Your task to perform on an android device: Search for sushi restaurants on Maps Image 0: 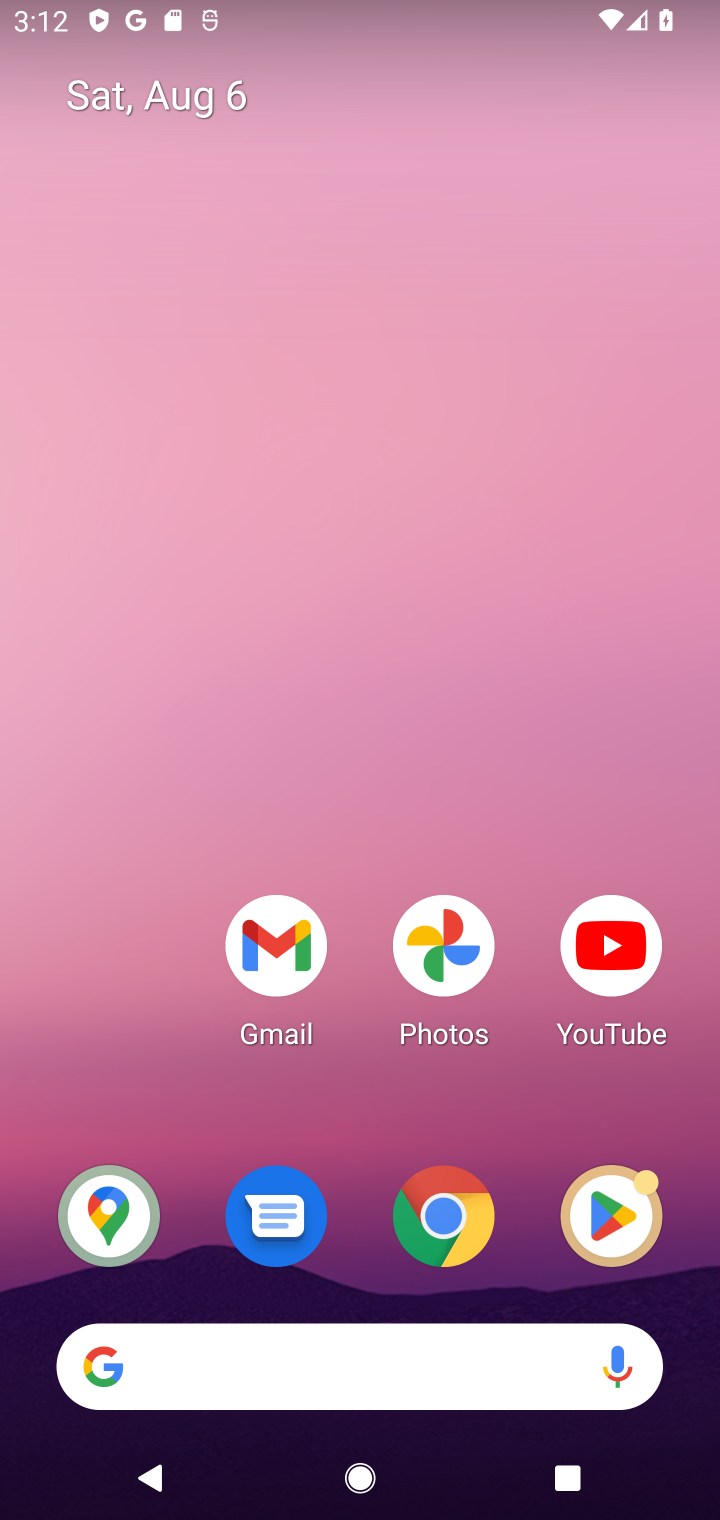
Step 0: click (127, 1231)
Your task to perform on an android device: Search for sushi restaurants on Maps Image 1: 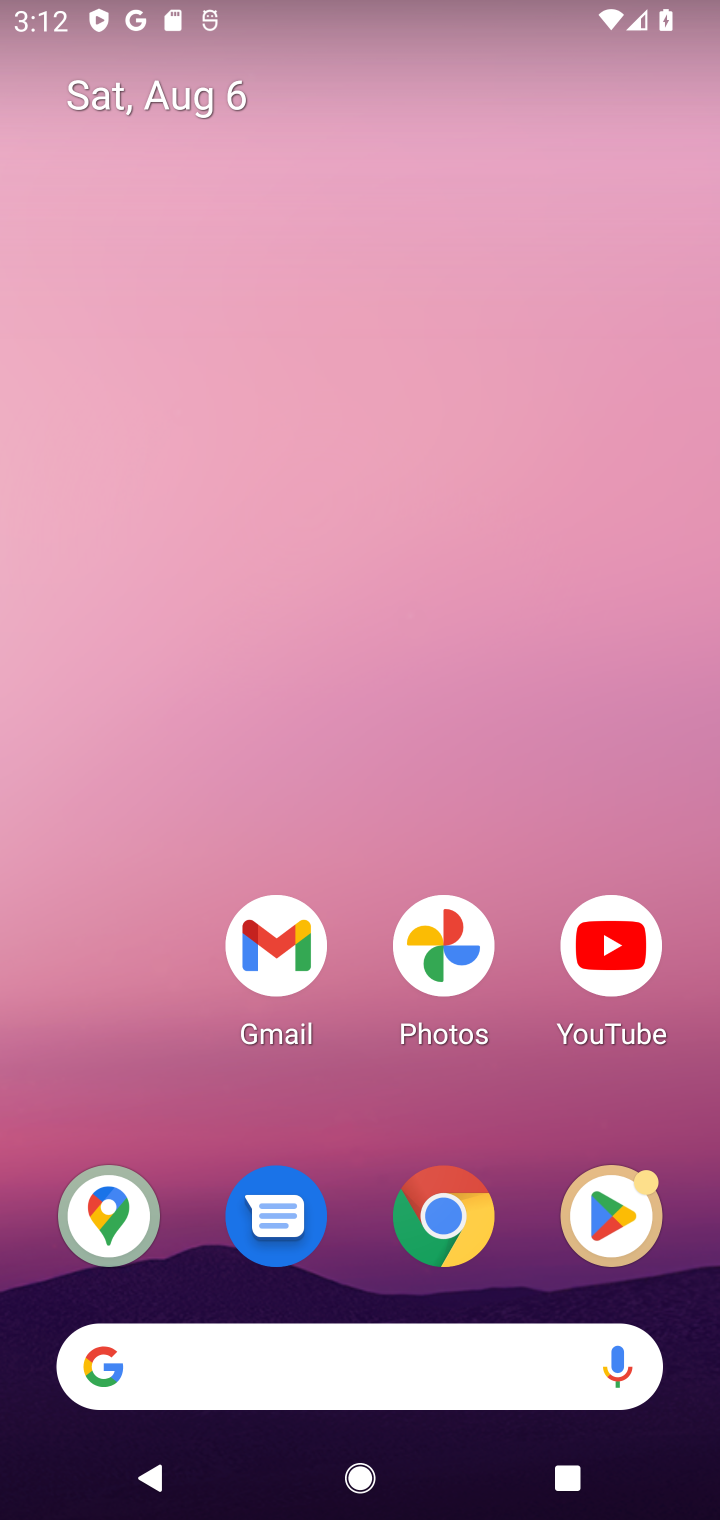
Step 1: click (127, 1231)
Your task to perform on an android device: Search for sushi restaurants on Maps Image 2: 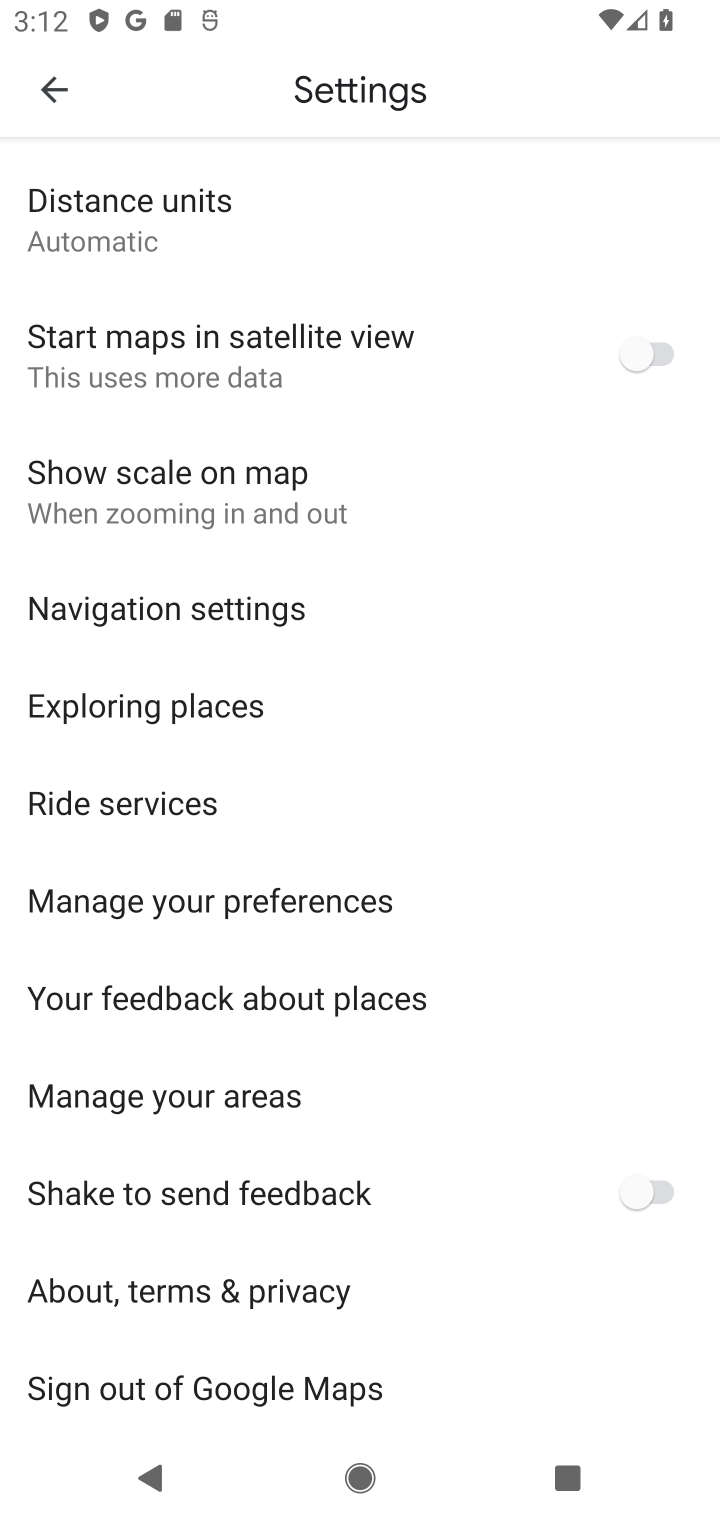
Step 2: press back button
Your task to perform on an android device: Search for sushi restaurants on Maps Image 3: 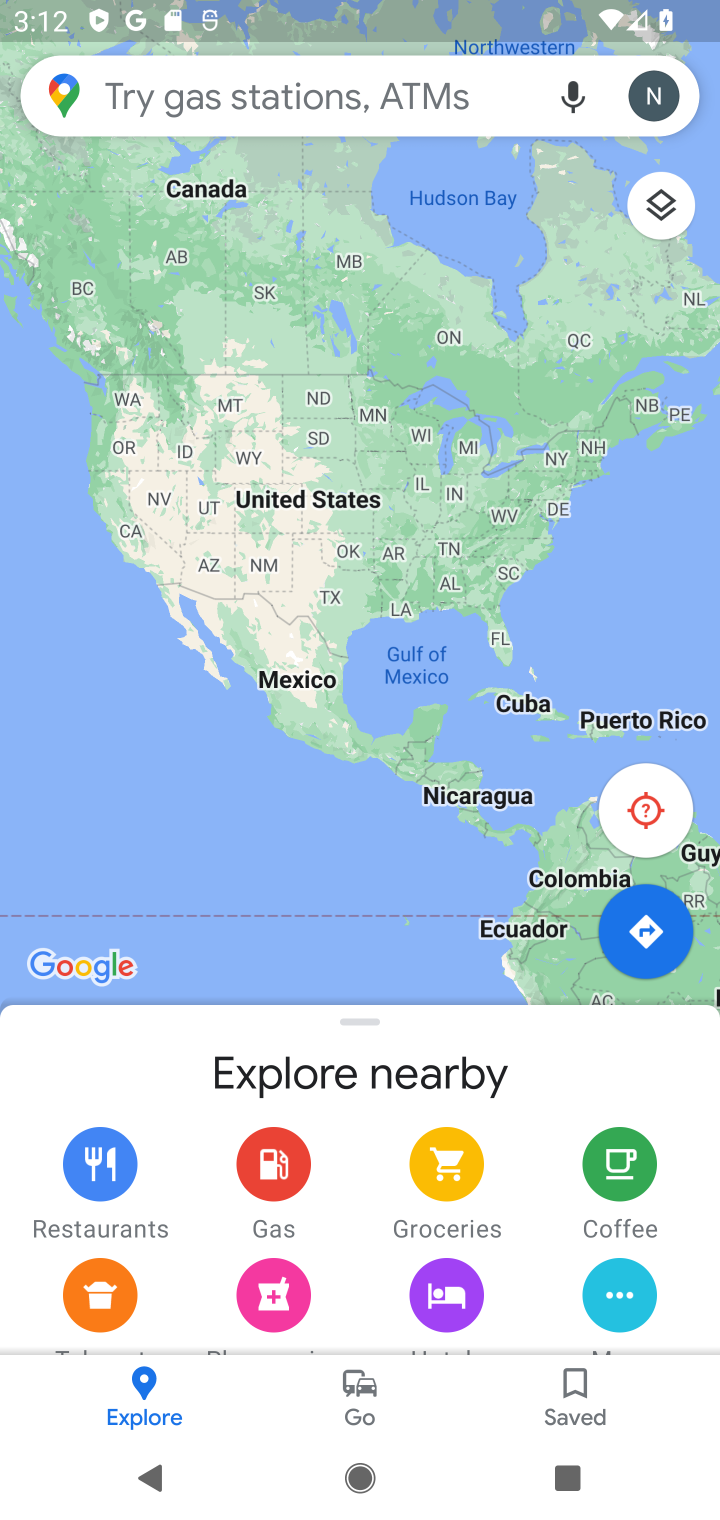
Step 3: click (240, 83)
Your task to perform on an android device: Search for sushi restaurants on Maps Image 4: 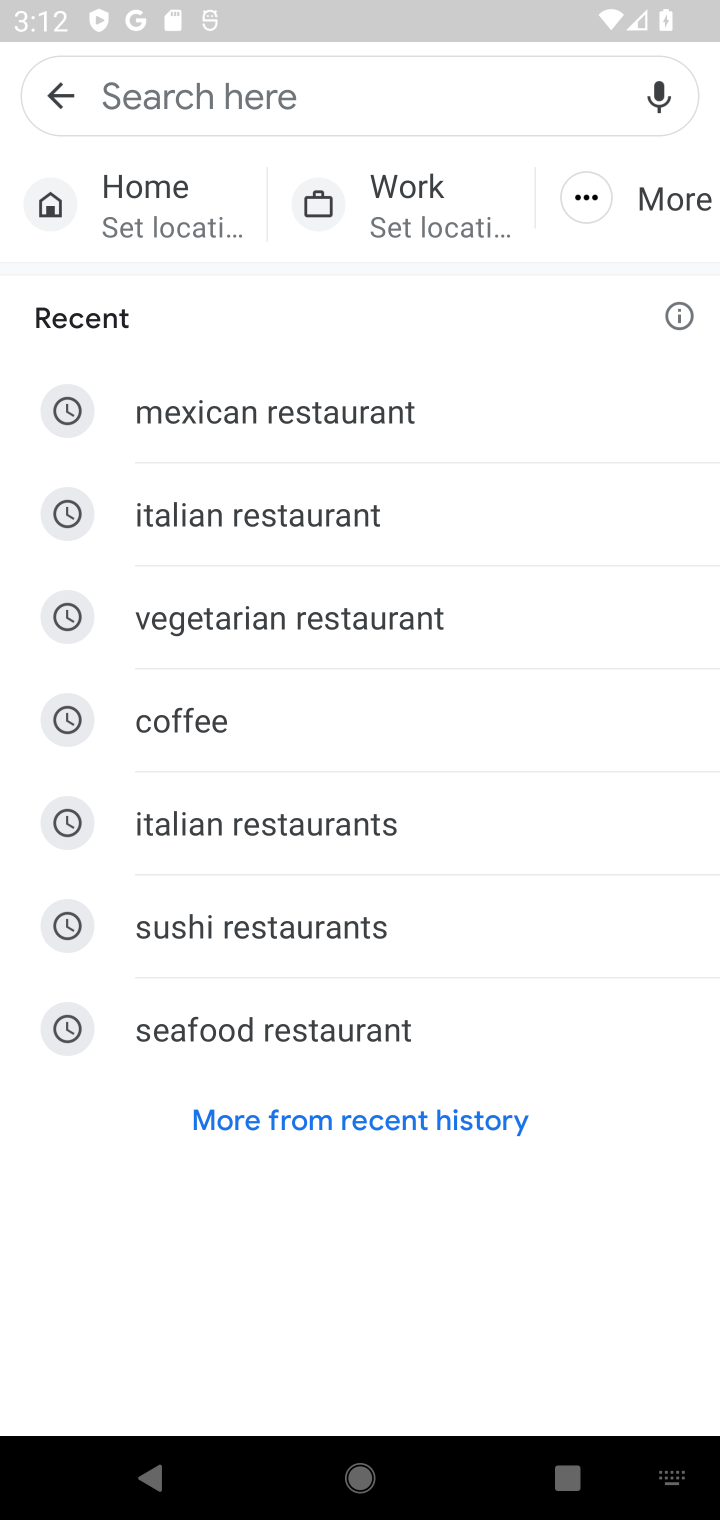
Step 4: click (300, 934)
Your task to perform on an android device: Search for sushi restaurants on Maps Image 5: 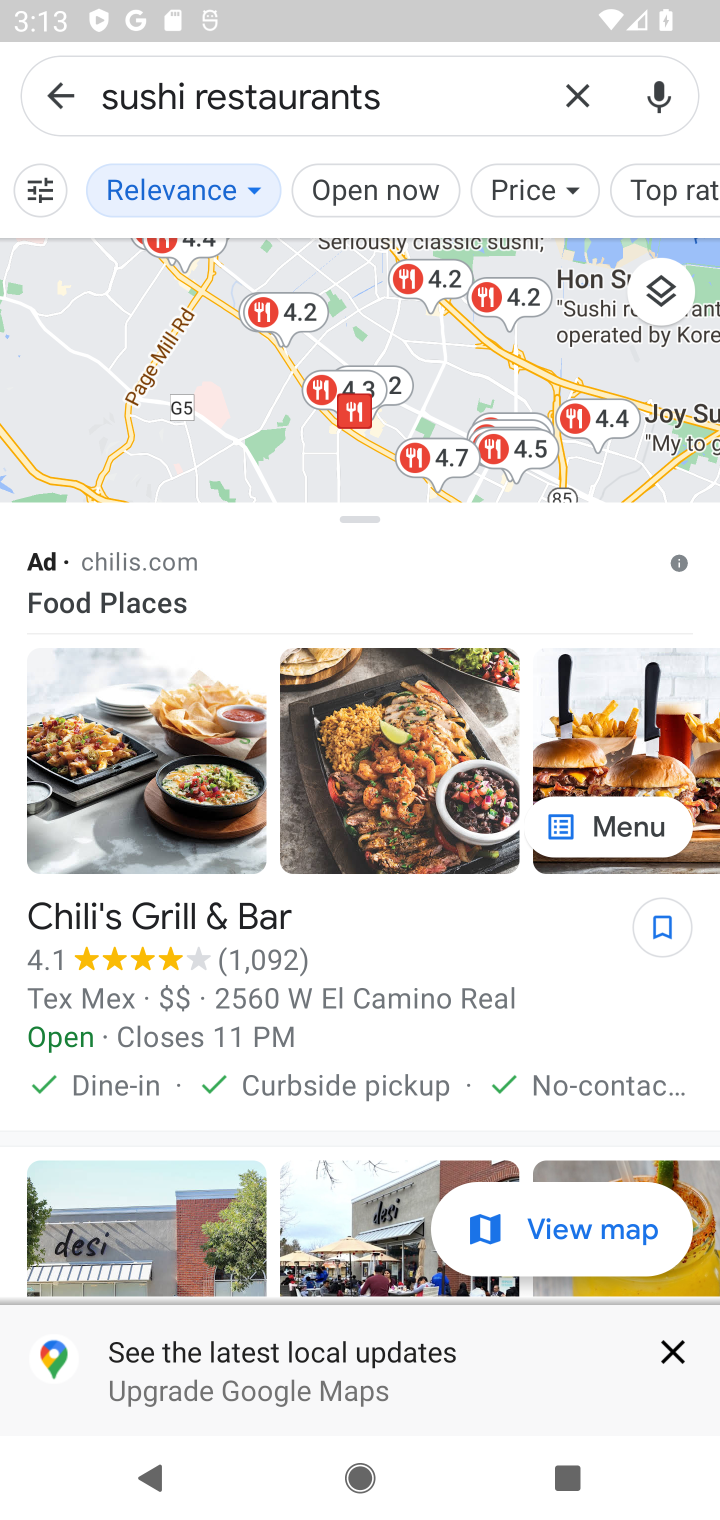
Step 5: task complete